Your task to perform on an android device: Is it going to rain tomorrow? Image 0: 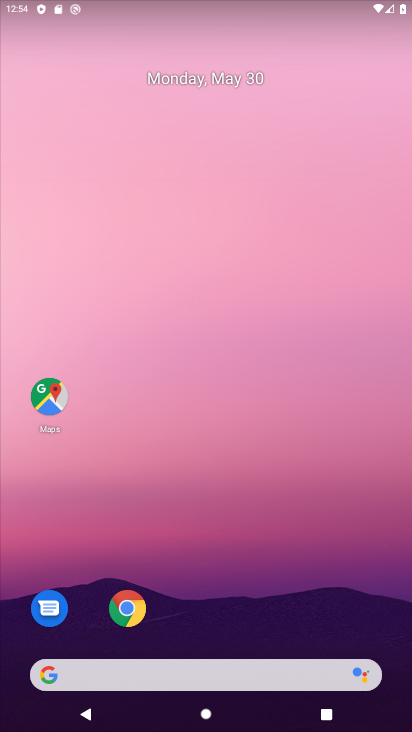
Step 0: click (127, 606)
Your task to perform on an android device: Is it going to rain tomorrow? Image 1: 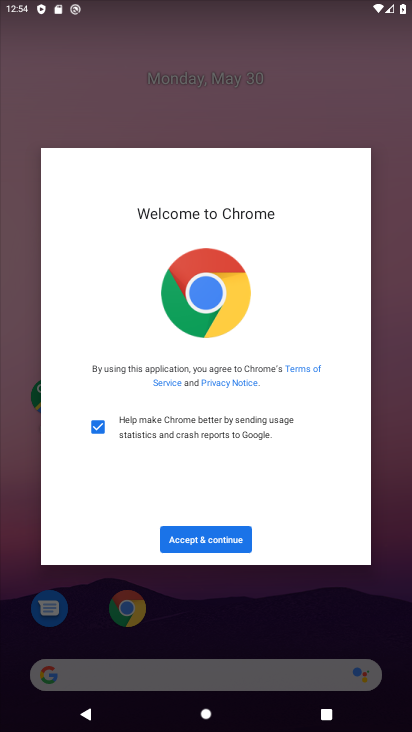
Step 1: click (210, 539)
Your task to perform on an android device: Is it going to rain tomorrow? Image 2: 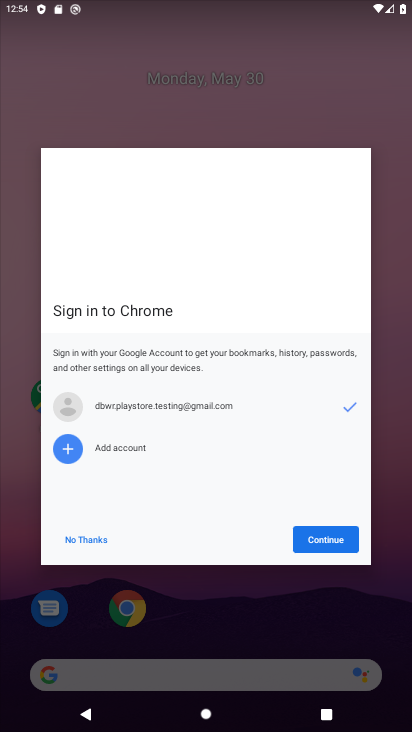
Step 2: click (335, 539)
Your task to perform on an android device: Is it going to rain tomorrow? Image 3: 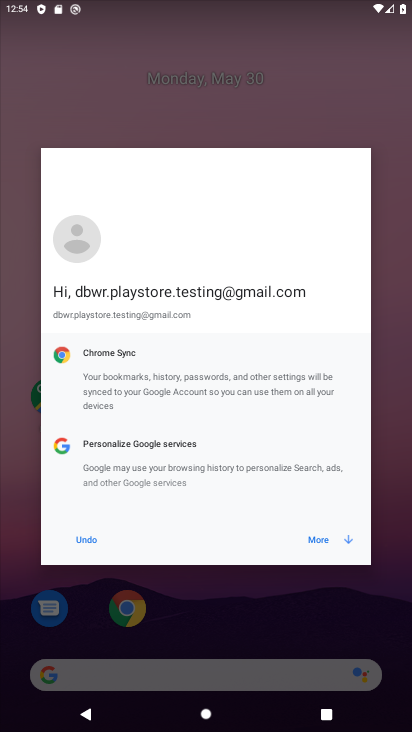
Step 3: click (335, 539)
Your task to perform on an android device: Is it going to rain tomorrow? Image 4: 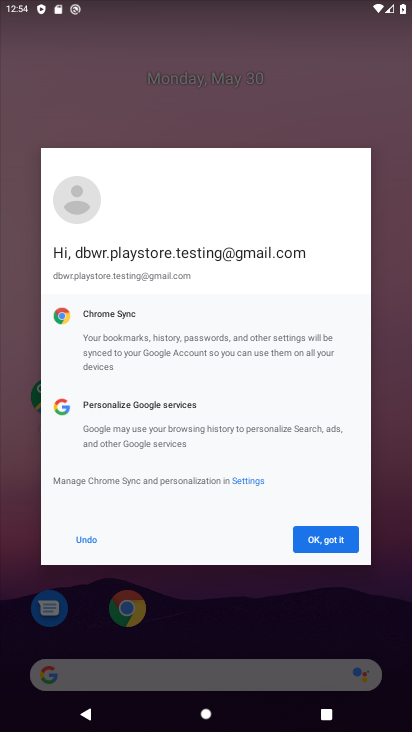
Step 4: click (331, 532)
Your task to perform on an android device: Is it going to rain tomorrow? Image 5: 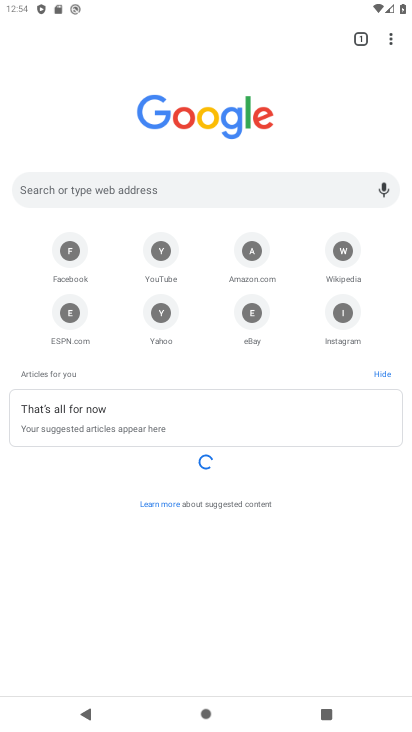
Step 5: click (93, 183)
Your task to perform on an android device: Is it going to rain tomorrow? Image 6: 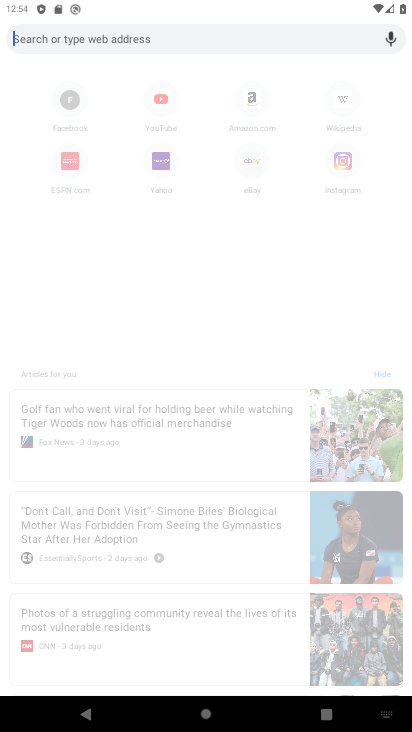
Step 6: type "Is it going to rain tomorrow?"
Your task to perform on an android device: Is it going to rain tomorrow? Image 7: 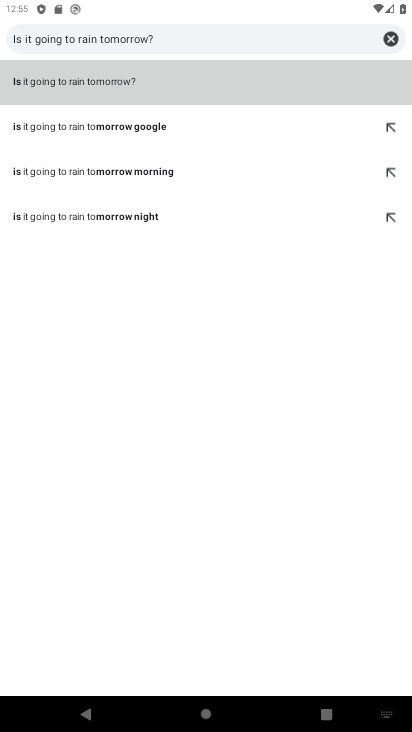
Step 7: click (69, 85)
Your task to perform on an android device: Is it going to rain tomorrow? Image 8: 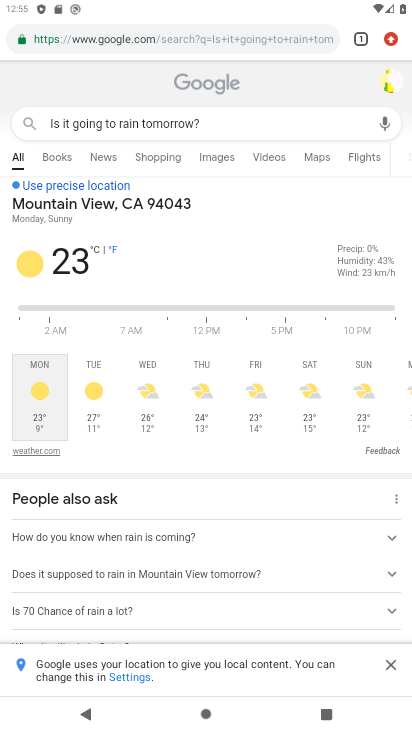
Step 8: task complete